Your task to perform on an android device: allow notifications from all sites in the chrome app Image 0: 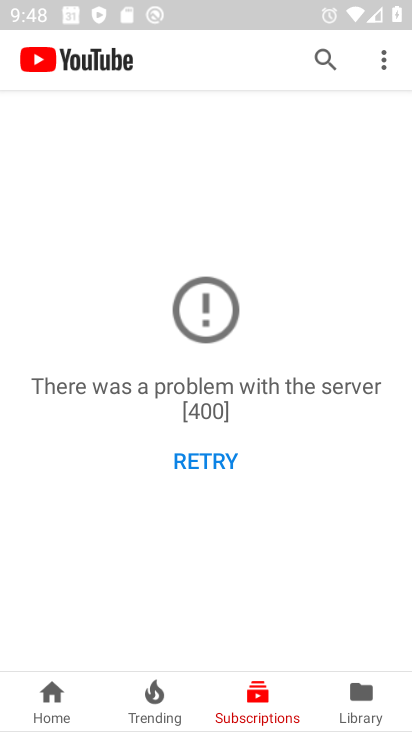
Step 0: press home button
Your task to perform on an android device: allow notifications from all sites in the chrome app Image 1: 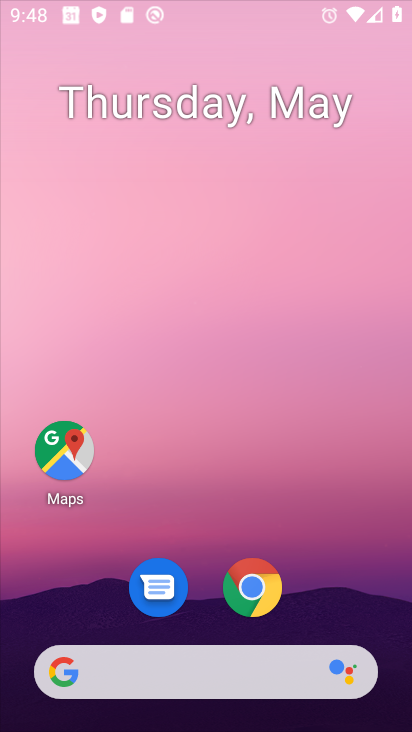
Step 1: drag from (393, 658) to (200, 0)
Your task to perform on an android device: allow notifications from all sites in the chrome app Image 2: 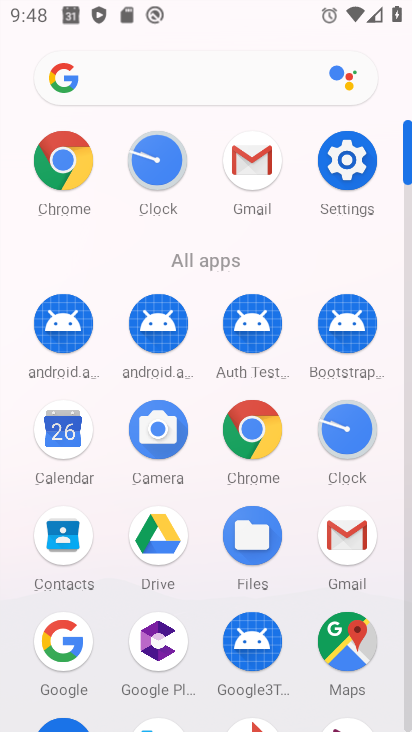
Step 2: click (258, 427)
Your task to perform on an android device: allow notifications from all sites in the chrome app Image 3: 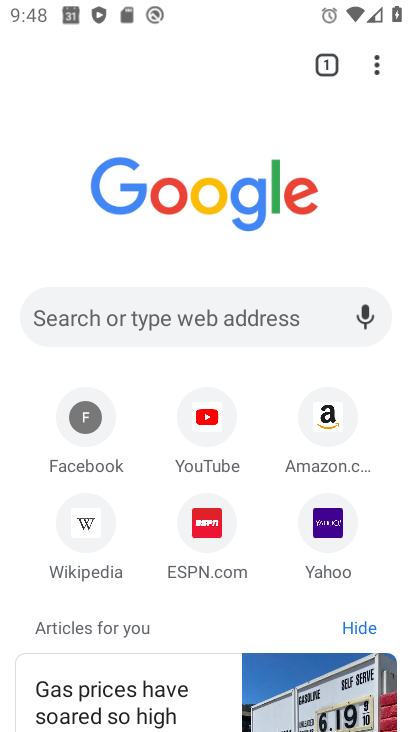
Step 3: click (376, 58)
Your task to perform on an android device: allow notifications from all sites in the chrome app Image 4: 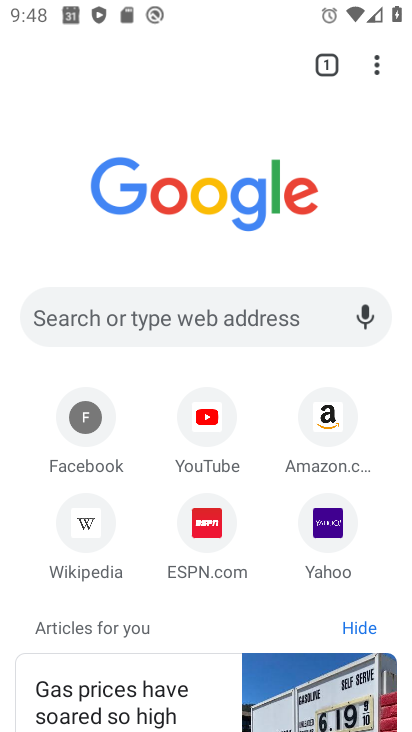
Step 4: click (376, 58)
Your task to perform on an android device: allow notifications from all sites in the chrome app Image 5: 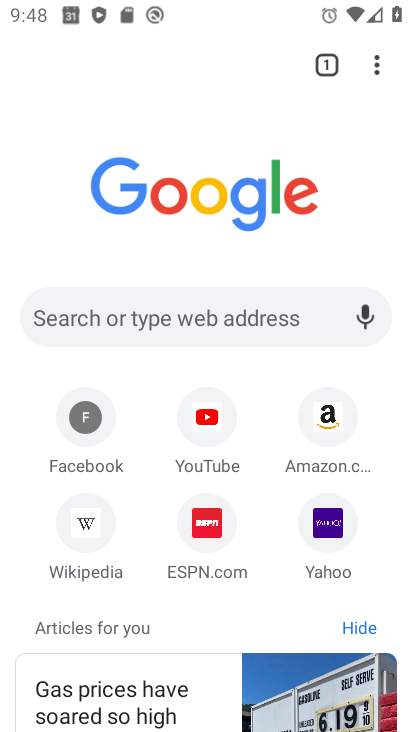
Step 5: click (376, 58)
Your task to perform on an android device: allow notifications from all sites in the chrome app Image 6: 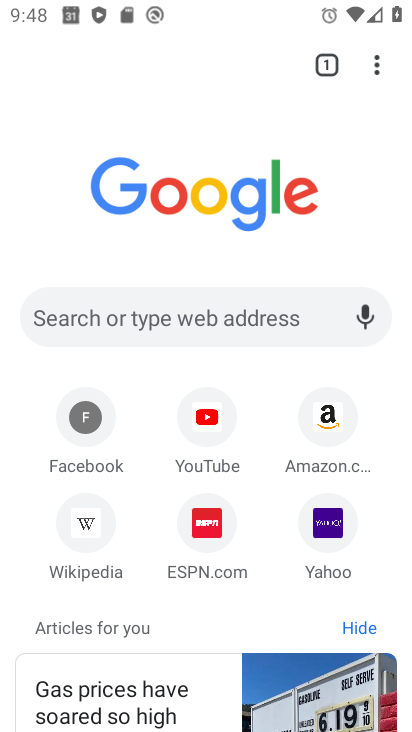
Step 6: click (376, 58)
Your task to perform on an android device: allow notifications from all sites in the chrome app Image 7: 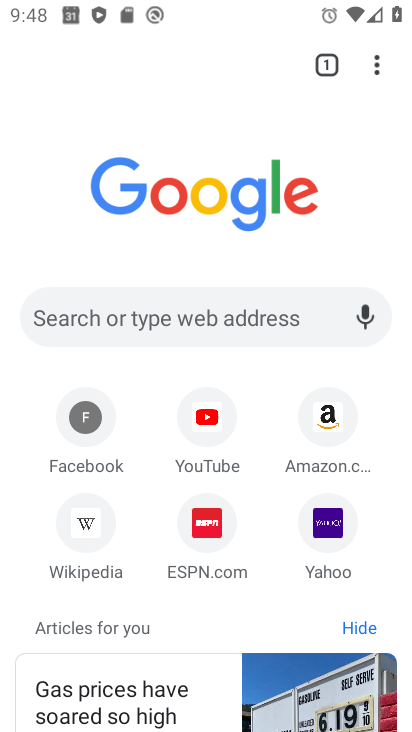
Step 7: click (376, 61)
Your task to perform on an android device: allow notifications from all sites in the chrome app Image 8: 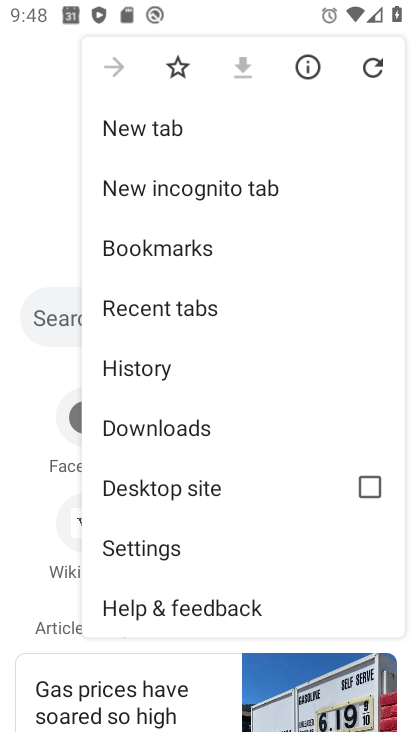
Step 8: click (187, 548)
Your task to perform on an android device: allow notifications from all sites in the chrome app Image 9: 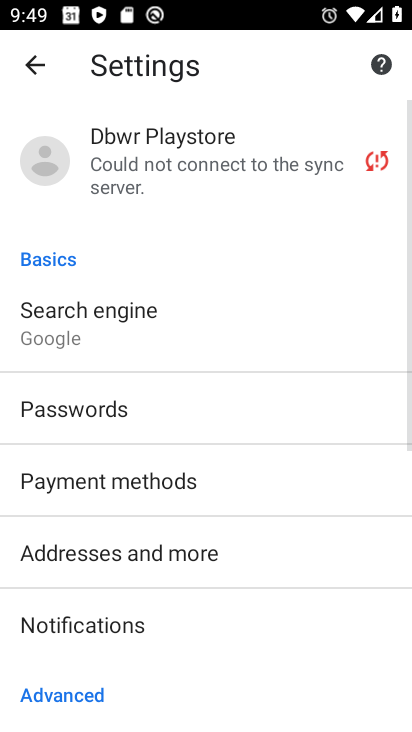
Step 9: click (104, 622)
Your task to perform on an android device: allow notifications from all sites in the chrome app Image 10: 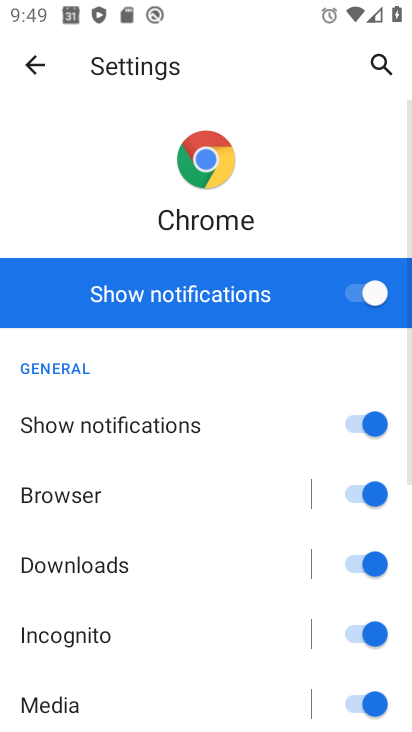
Step 10: task complete